Your task to perform on an android device: turn off data saver in the chrome app Image 0: 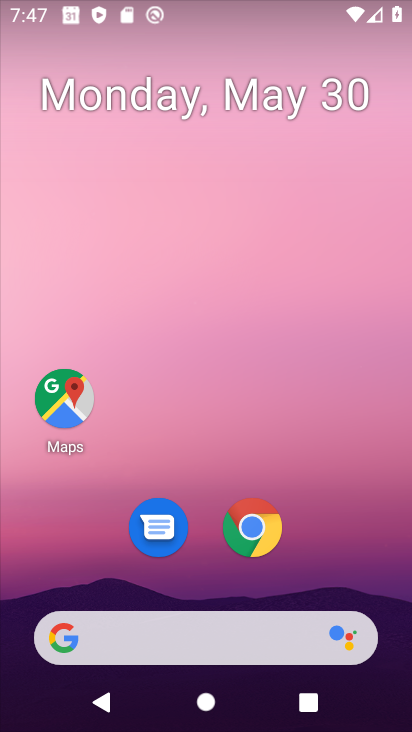
Step 0: click (255, 522)
Your task to perform on an android device: turn off data saver in the chrome app Image 1: 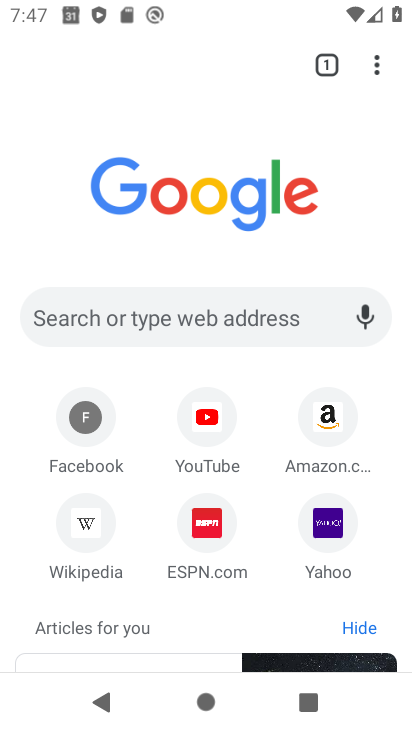
Step 1: click (372, 68)
Your task to perform on an android device: turn off data saver in the chrome app Image 2: 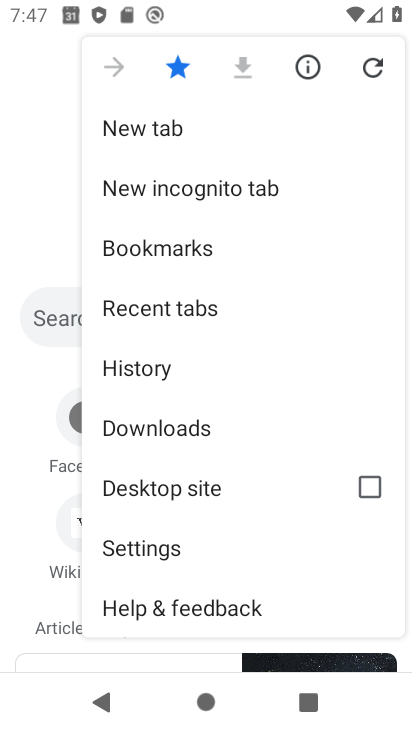
Step 2: click (173, 543)
Your task to perform on an android device: turn off data saver in the chrome app Image 3: 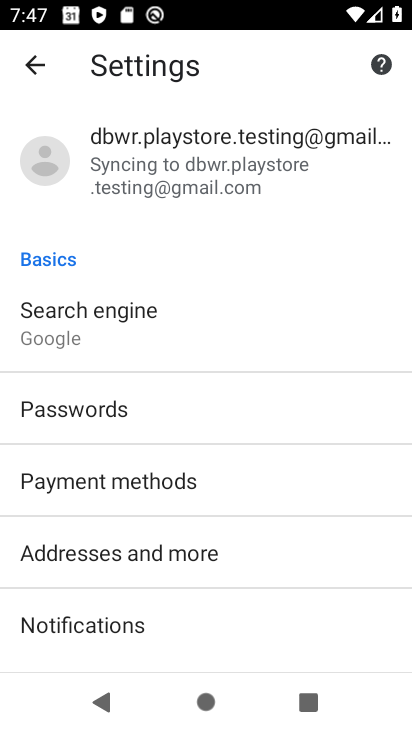
Step 3: drag from (199, 618) to (225, 192)
Your task to perform on an android device: turn off data saver in the chrome app Image 4: 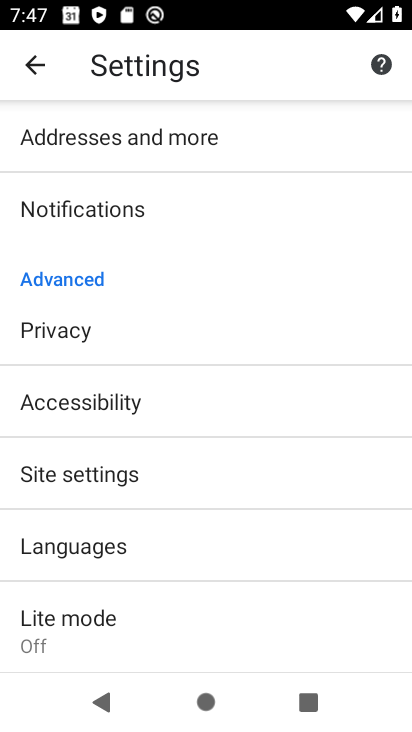
Step 4: click (190, 623)
Your task to perform on an android device: turn off data saver in the chrome app Image 5: 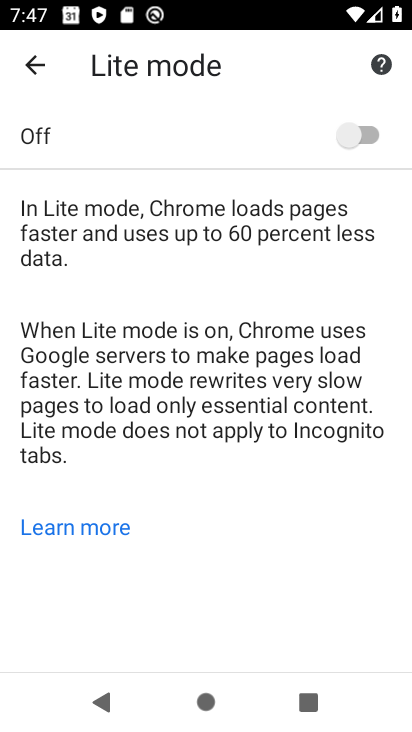
Step 5: task complete